Your task to perform on an android device: create a new album in the google photos Image 0: 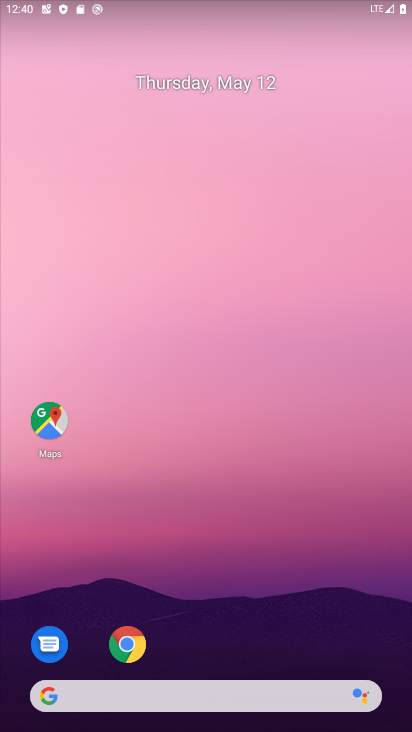
Step 0: drag from (251, 351) to (220, 86)
Your task to perform on an android device: create a new album in the google photos Image 1: 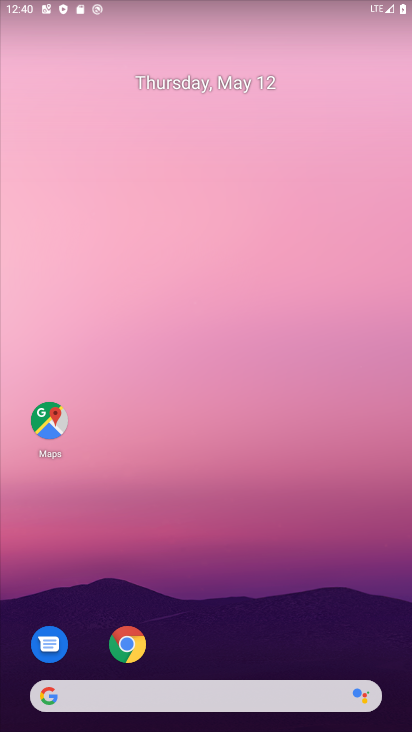
Step 1: drag from (208, 587) to (174, 119)
Your task to perform on an android device: create a new album in the google photos Image 2: 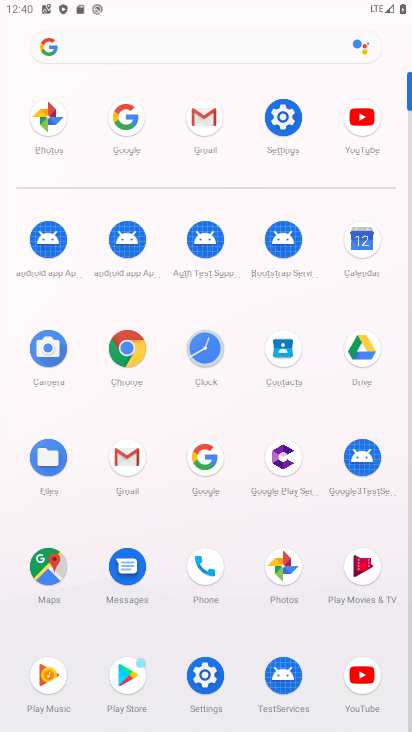
Step 2: click (277, 565)
Your task to perform on an android device: create a new album in the google photos Image 3: 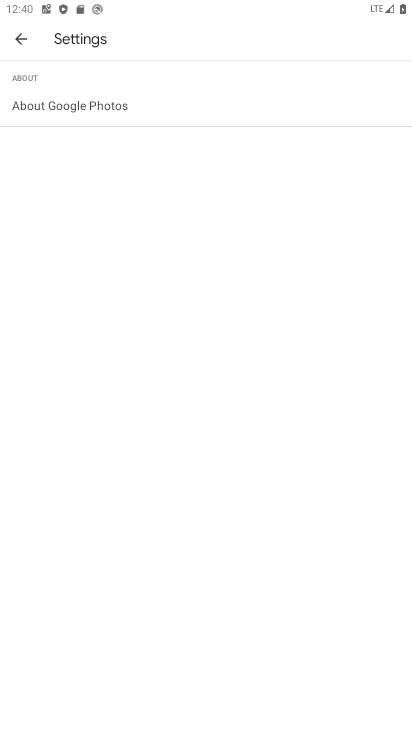
Step 3: click (22, 36)
Your task to perform on an android device: create a new album in the google photos Image 4: 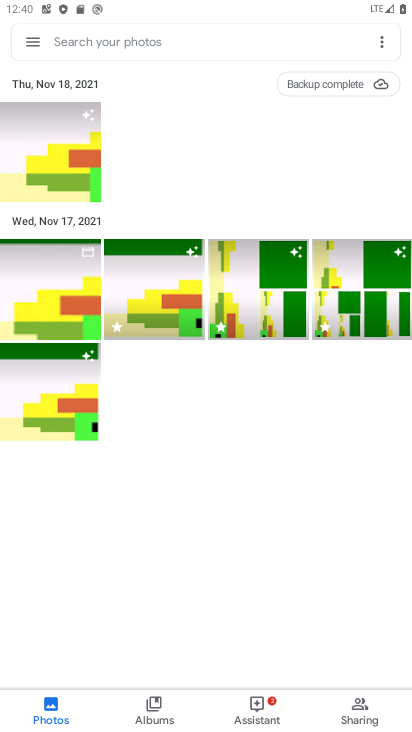
Step 4: click (161, 708)
Your task to perform on an android device: create a new album in the google photos Image 5: 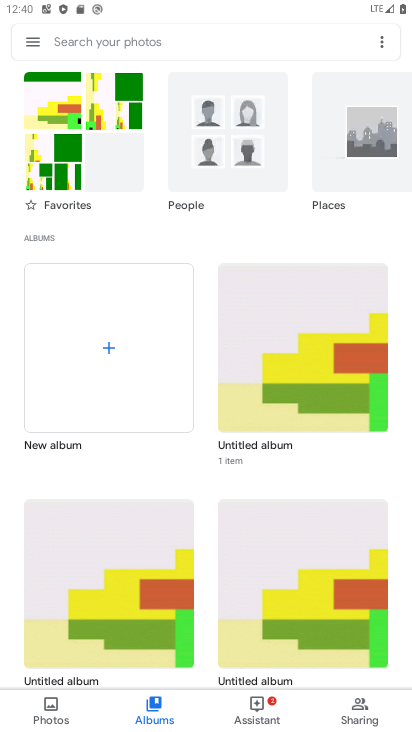
Step 5: click (117, 369)
Your task to perform on an android device: create a new album in the google photos Image 6: 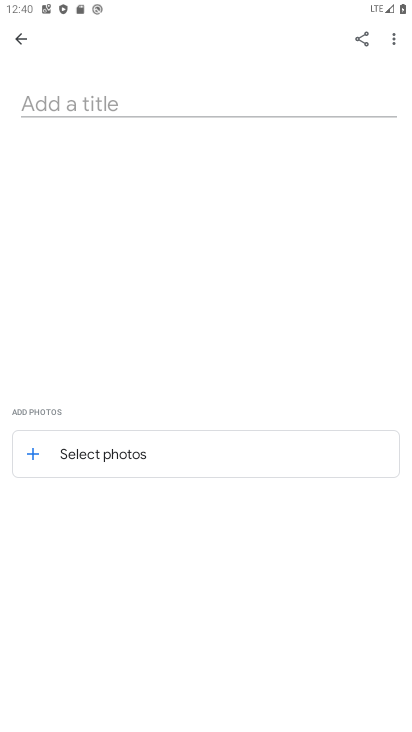
Step 6: click (133, 99)
Your task to perform on an android device: create a new album in the google photos Image 7: 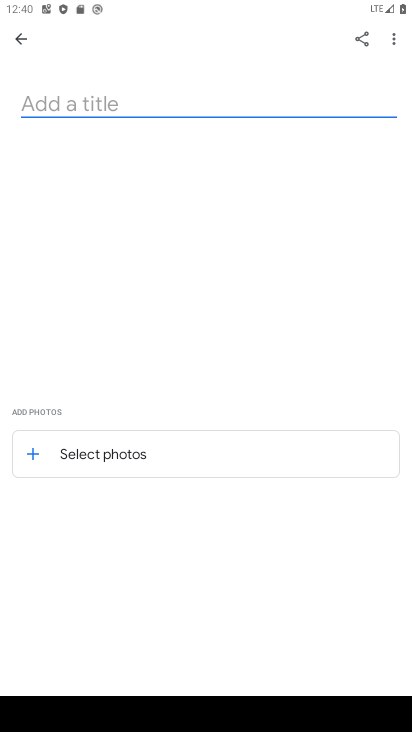
Step 7: type "dfgsdfg"
Your task to perform on an android device: create a new album in the google photos Image 8: 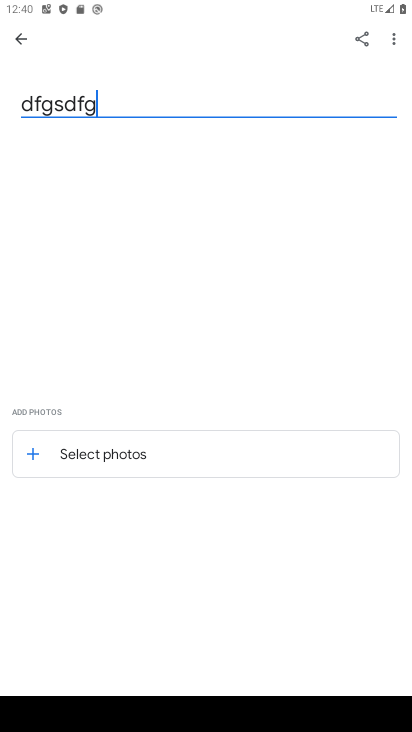
Step 8: type ""
Your task to perform on an android device: create a new album in the google photos Image 9: 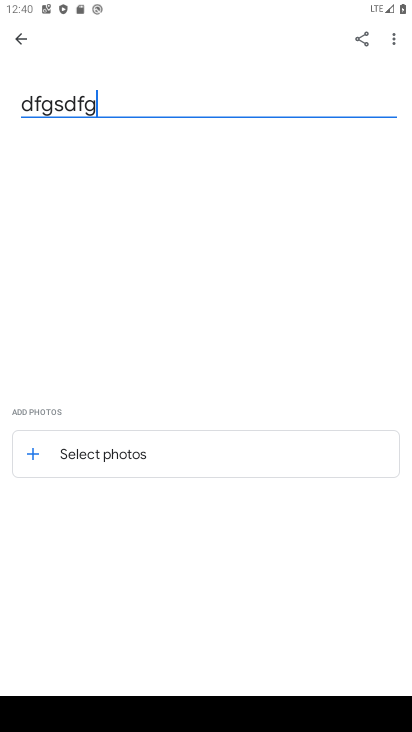
Step 9: click (141, 453)
Your task to perform on an android device: create a new album in the google photos Image 10: 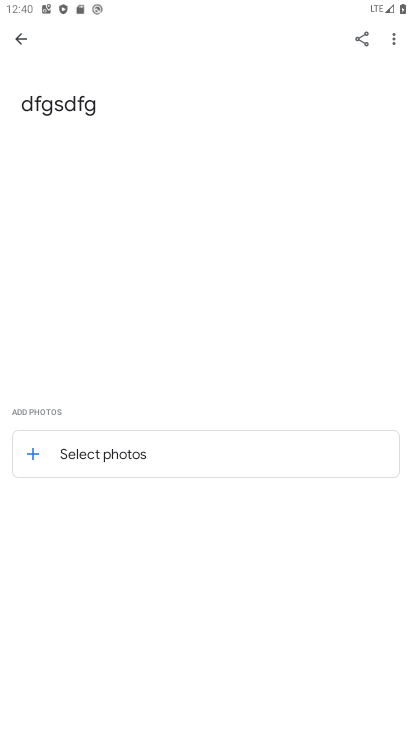
Step 10: click (142, 453)
Your task to perform on an android device: create a new album in the google photos Image 11: 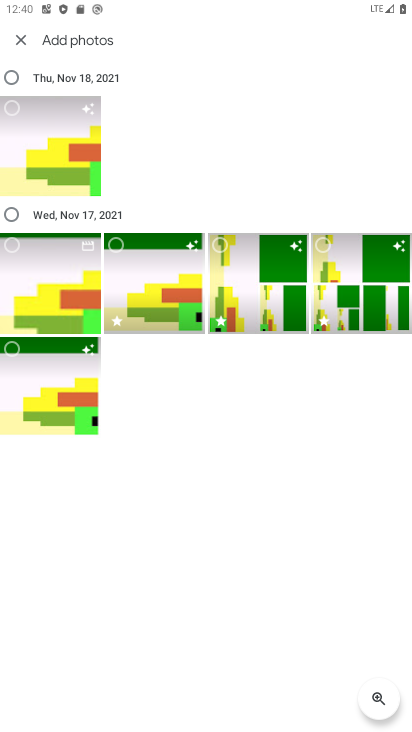
Step 11: click (153, 296)
Your task to perform on an android device: create a new album in the google photos Image 12: 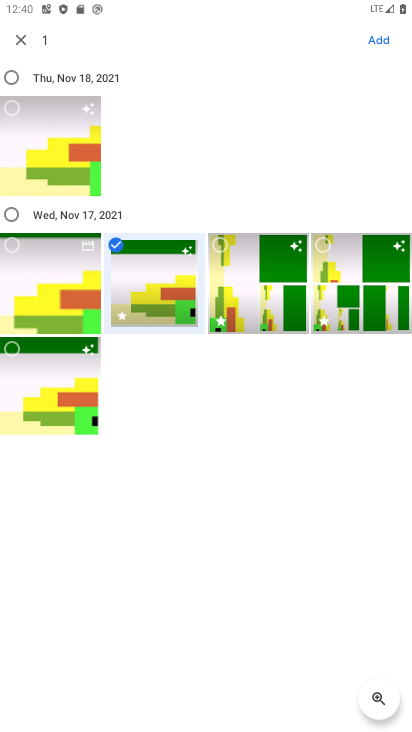
Step 12: click (251, 296)
Your task to perform on an android device: create a new album in the google photos Image 13: 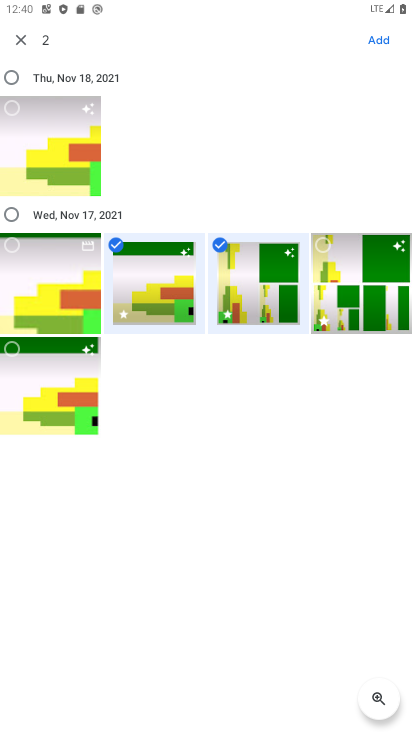
Step 13: click (372, 40)
Your task to perform on an android device: create a new album in the google photos Image 14: 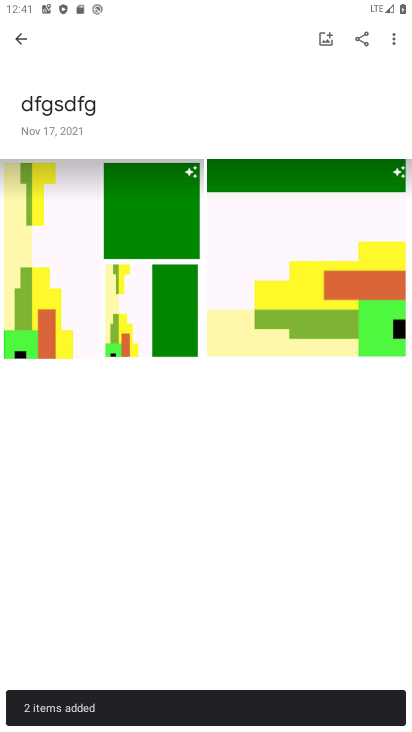
Step 14: task complete